Your task to perform on an android device: Open Google Maps Image 0: 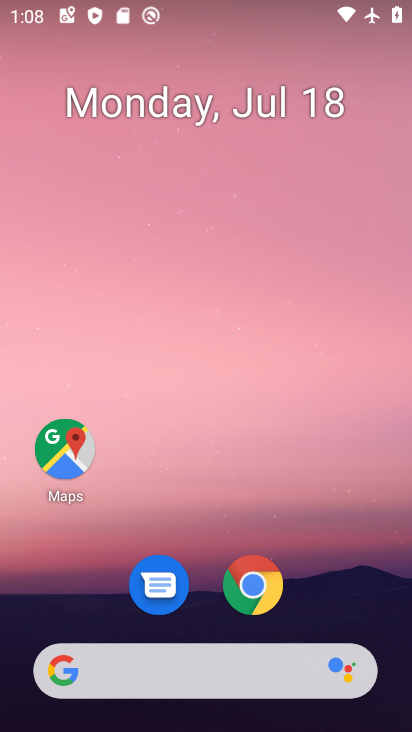
Step 0: click (71, 454)
Your task to perform on an android device: Open Google Maps Image 1: 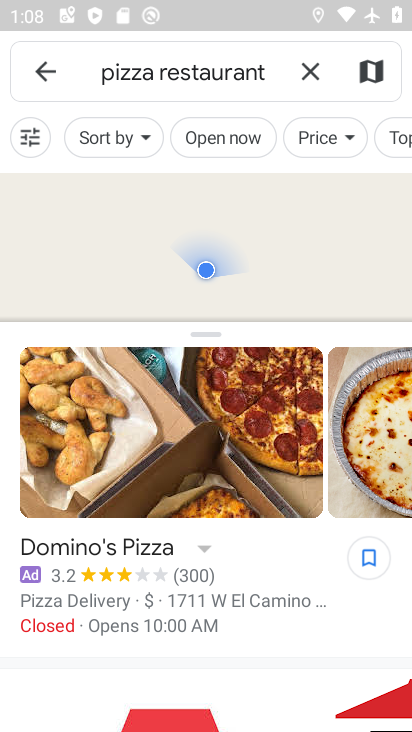
Step 1: click (48, 73)
Your task to perform on an android device: Open Google Maps Image 2: 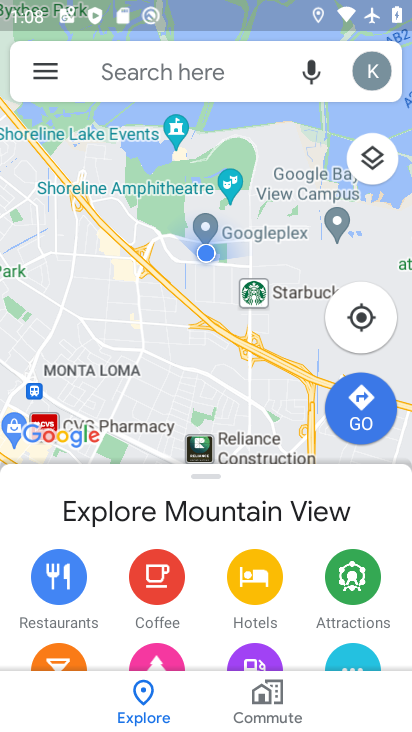
Step 2: task complete